Your task to perform on an android device: turn on showing notifications on the lock screen Image 0: 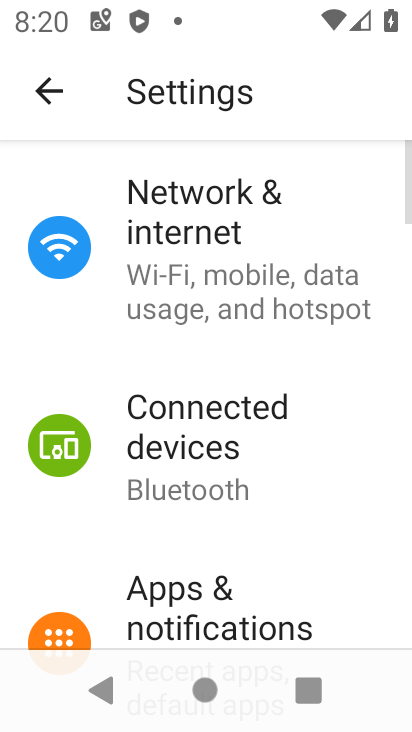
Step 0: press home button
Your task to perform on an android device: turn on showing notifications on the lock screen Image 1: 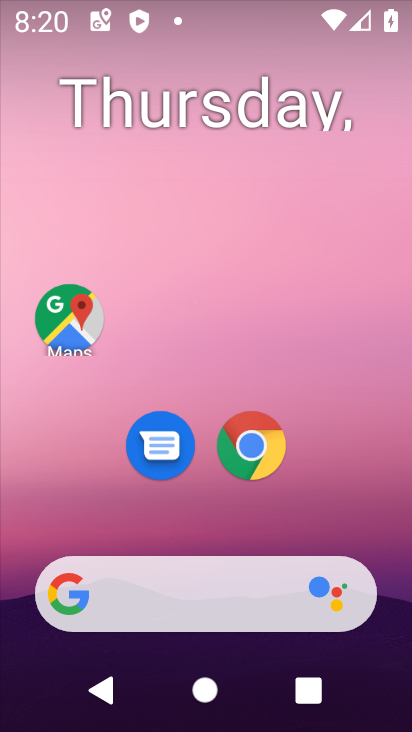
Step 1: drag from (383, 618) to (307, 55)
Your task to perform on an android device: turn on showing notifications on the lock screen Image 2: 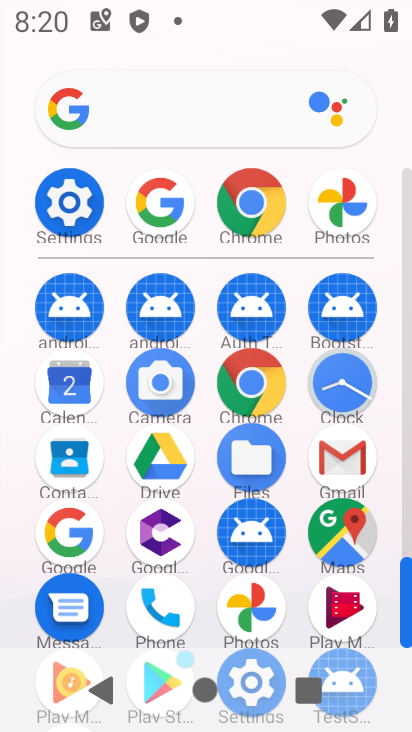
Step 2: click (74, 193)
Your task to perform on an android device: turn on showing notifications on the lock screen Image 3: 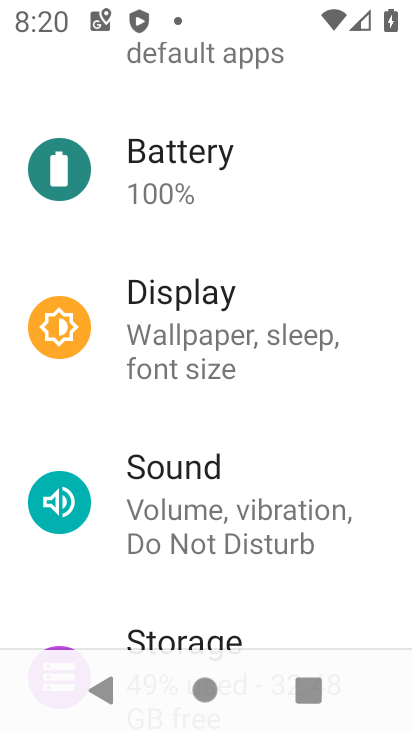
Step 3: drag from (269, 157) to (248, 576)
Your task to perform on an android device: turn on showing notifications on the lock screen Image 4: 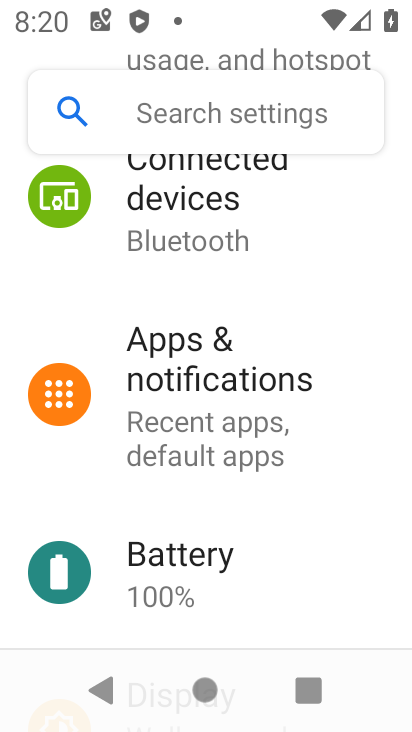
Step 4: click (267, 394)
Your task to perform on an android device: turn on showing notifications on the lock screen Image 5: 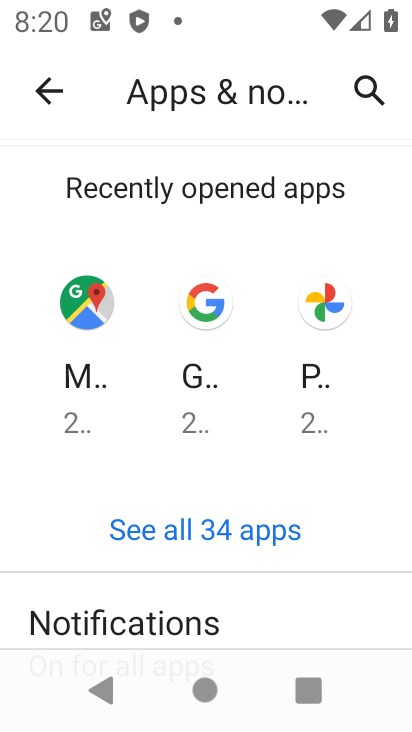
Step 5: click (241, 624)
Your task to perform on an android device: turn on showing notifications on the lock screen Image 6: 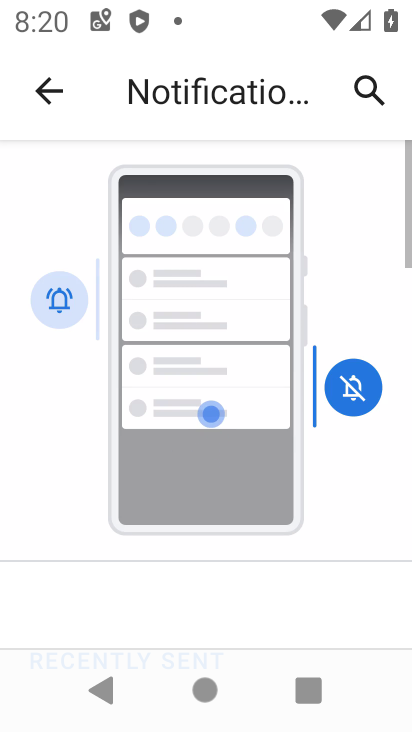
Step 6: click (227, 610)
Your task to perform on an android device: turn on showing notifications on the lock screen Image 7: 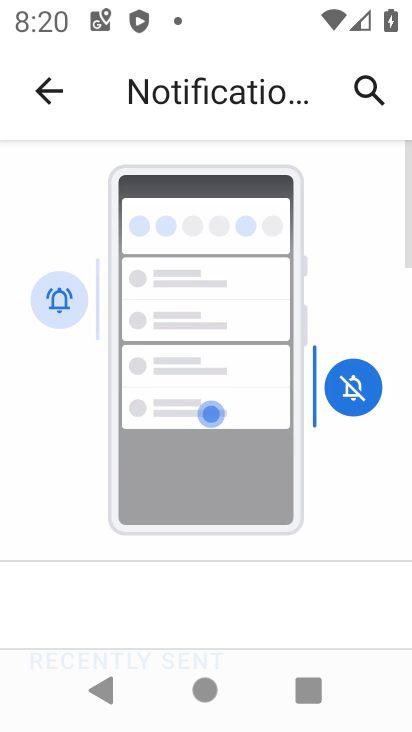
Step 7: drag from (254, 491) to (252, 60)
Your task to perform on an android device: turn on showing notifications on the lock screen Image 8: 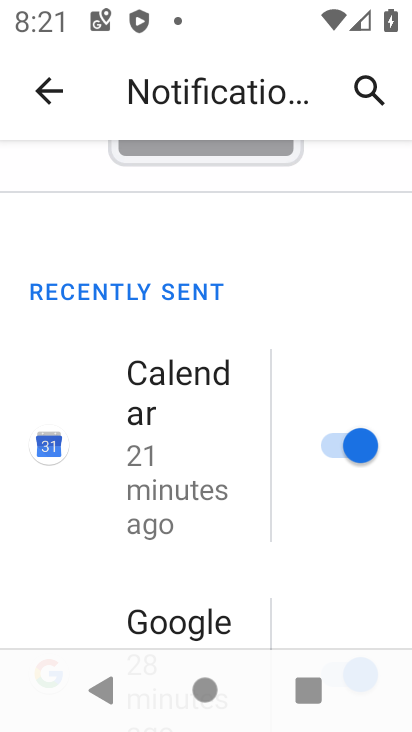
Step 8: drag from (185, 602) to (217, 49)
Your task to perform on an android device: turn on showing notifications on the lock screen Image 9: 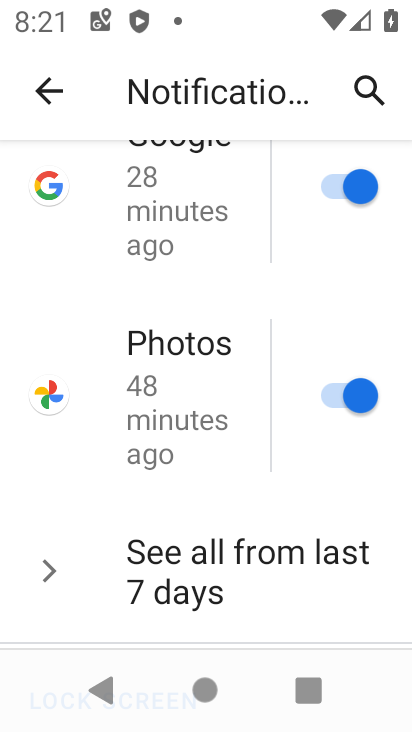
Step 9: drag from (190, 589) to (179, 145)
Your task to perform on an android device: turn on showing notifications on the lock screen Image 10: 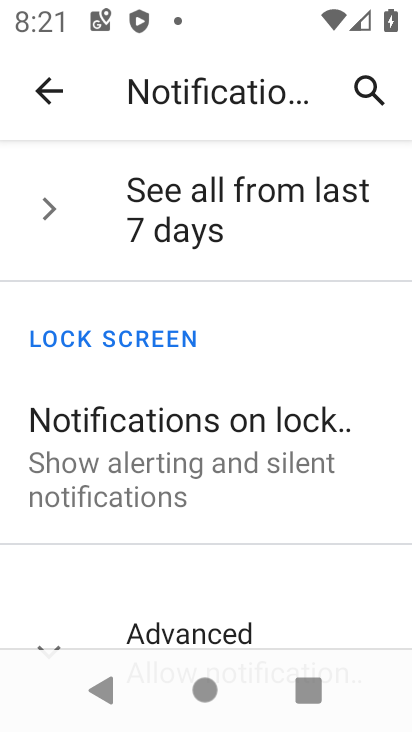
Step 10: click (218, 420)
Your task to perform on an android device: turn on showing notifications on the lock screen Image 11: 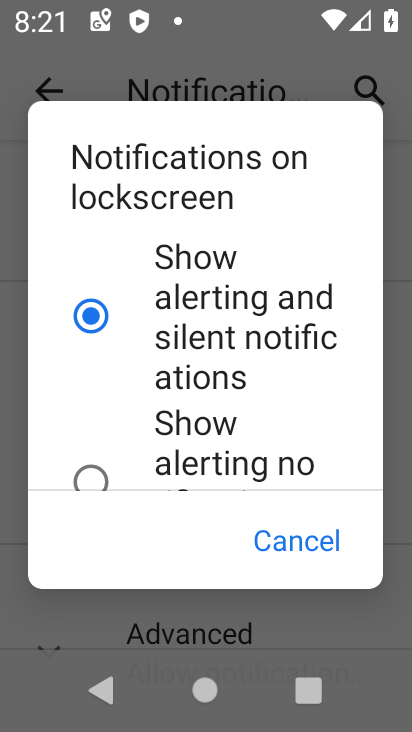
Step 11: task complete